Your task to perform on an android device: Go to Amazon Image 0: 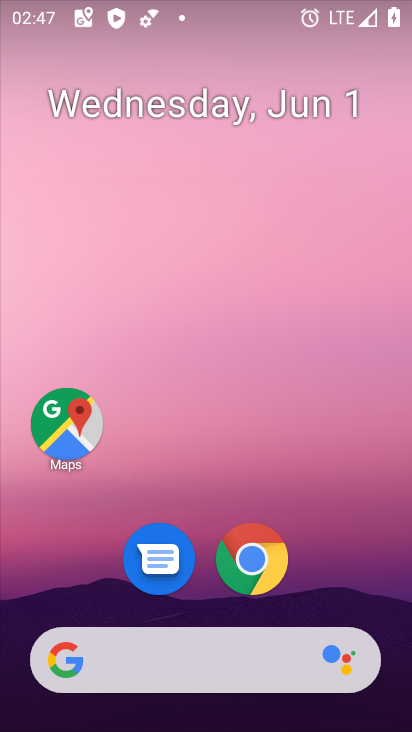
Step 0: press home button
Your task to perform on an android device: Go to Amazon Image 1: 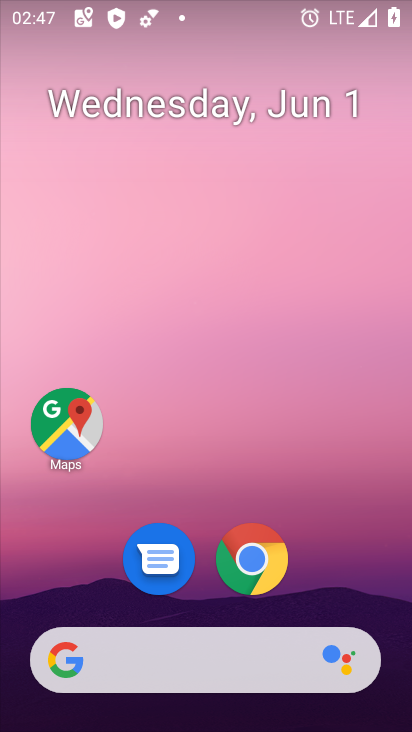
Step 1: click (56, 658)
Your task to perform on an android device: Go to Amazon Image 2: 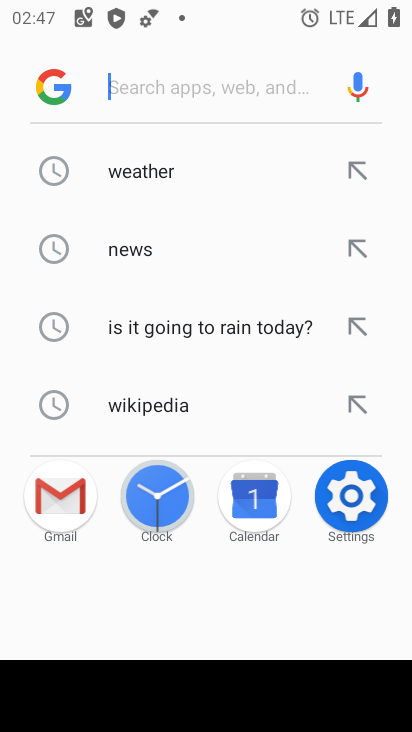
Step 2: type "Amazon"
Your task to perform on an android device: Go to Amazon Image 3: 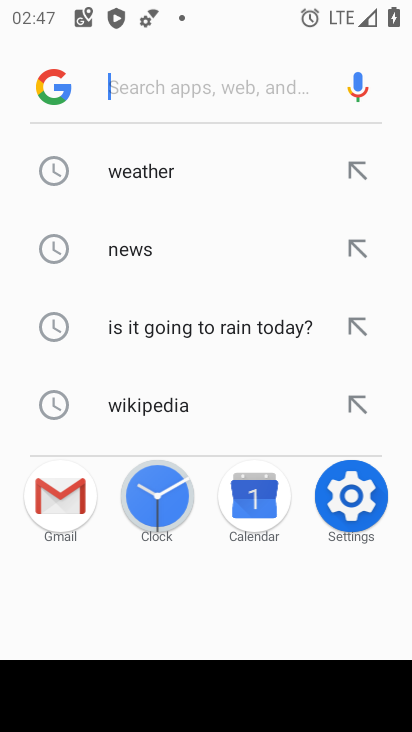
Step 3: click (173, 79)
Your task to perform on an android device: Go to Amazon Image 4: 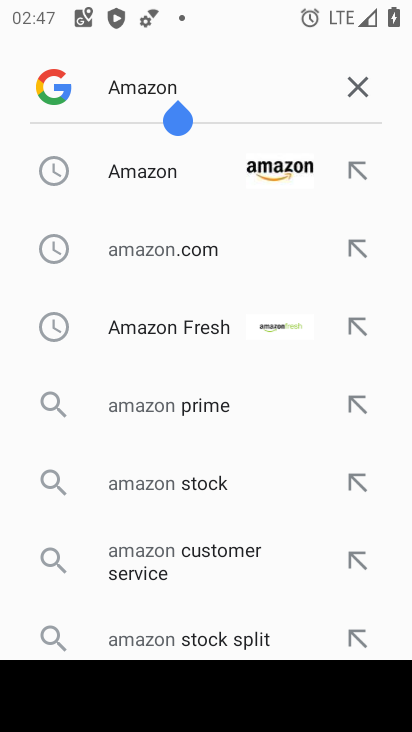
Step 4: click (147, 170)
Your task to perform on an android device: Go to Amazon Image 5: 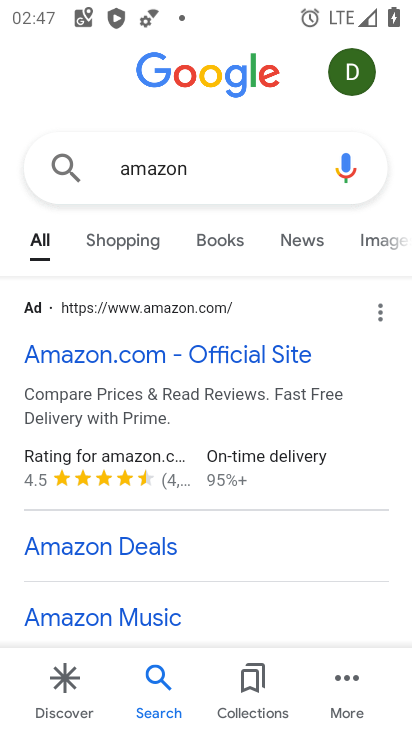
Step 5: click (148, 355)
Your task to perform on an android device: Go to Amazon Image 6: 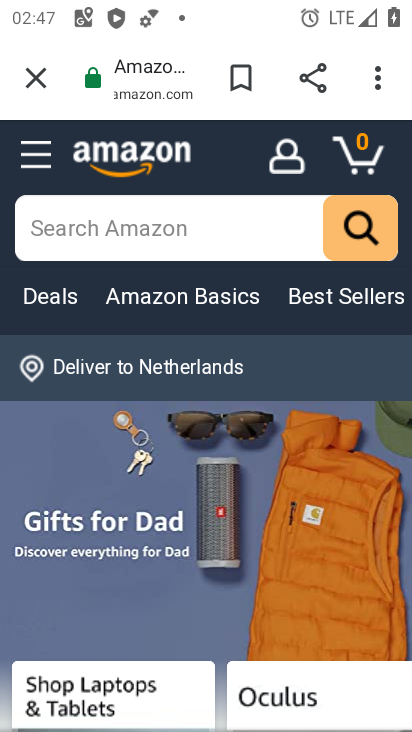
Step 6: task complete